Your task to perform on an android device: turn off improve location accuracy Image 0: 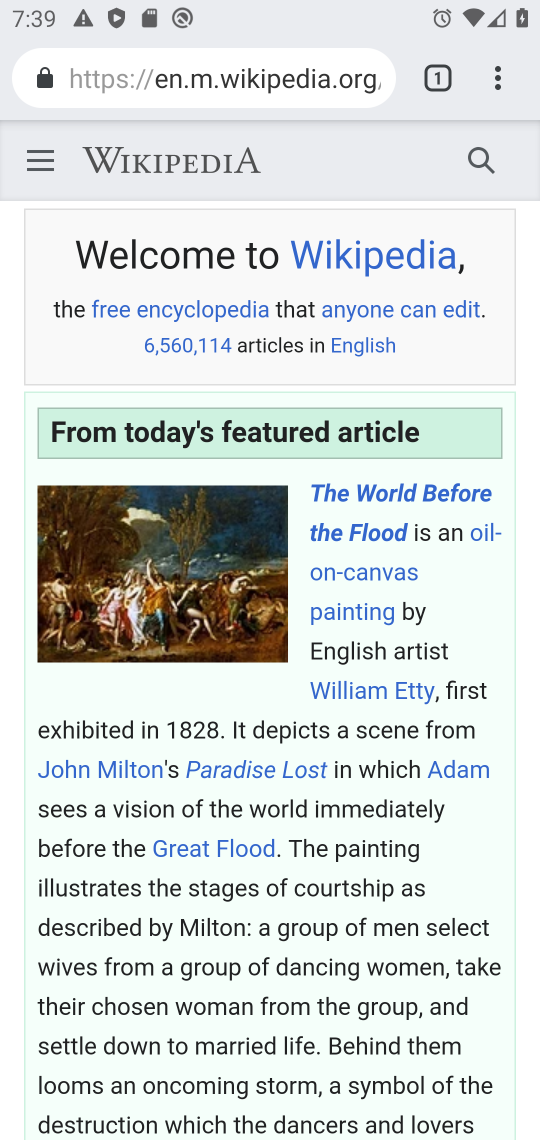
Step 0: press home button
Your task to perform on an android device: turn off improve location accuracy Image 1: 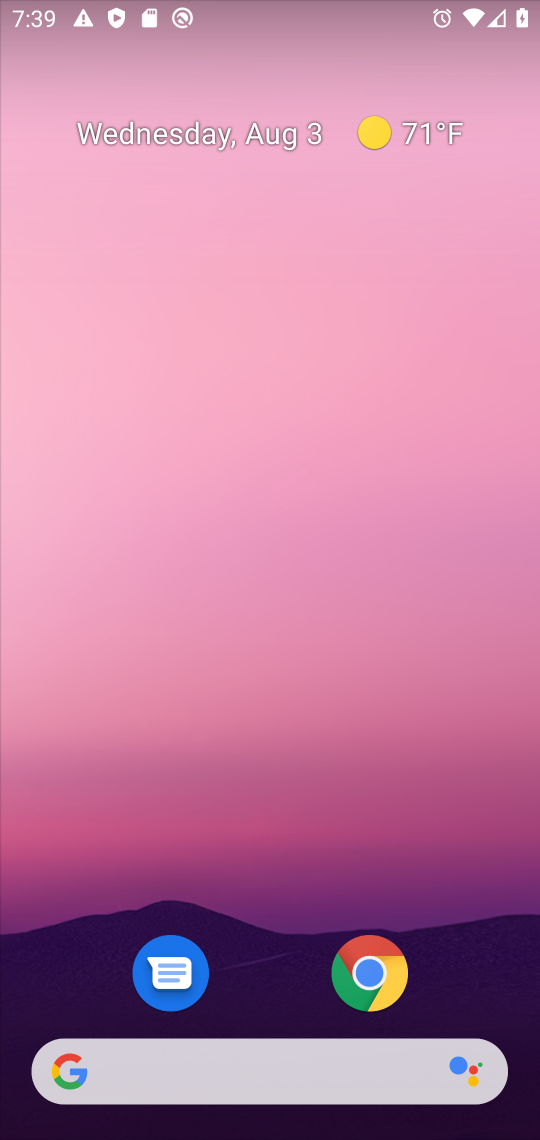
Step 1: drag from (284, 754) to (238, 216)
Your task to perform on an android device: turn off improve location accuracy Image 2: 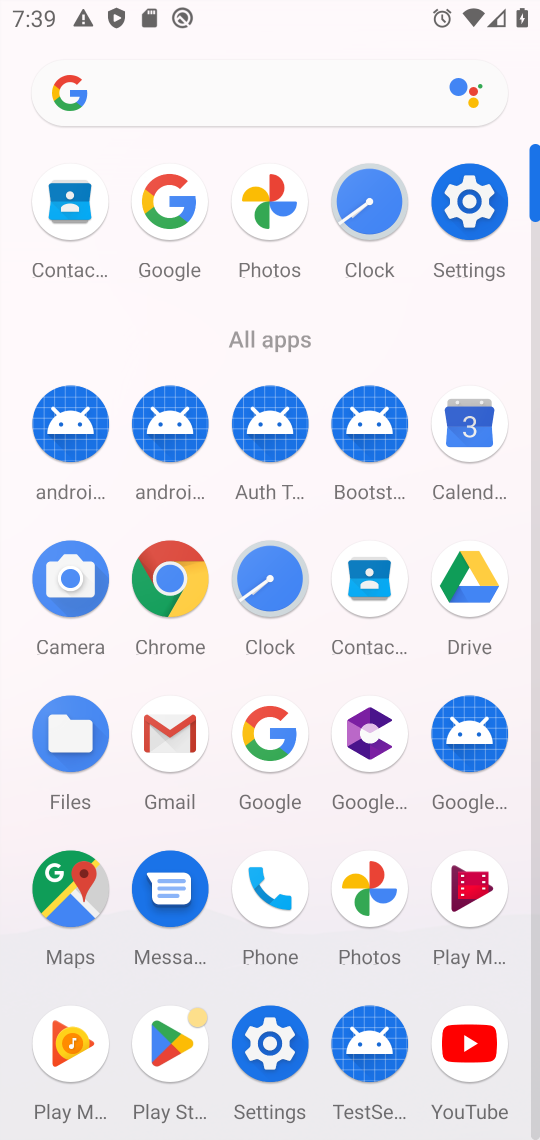
Step 2: click (461, 211)
Your task to perform on an android device: turn off improve location accuracy Image 3: 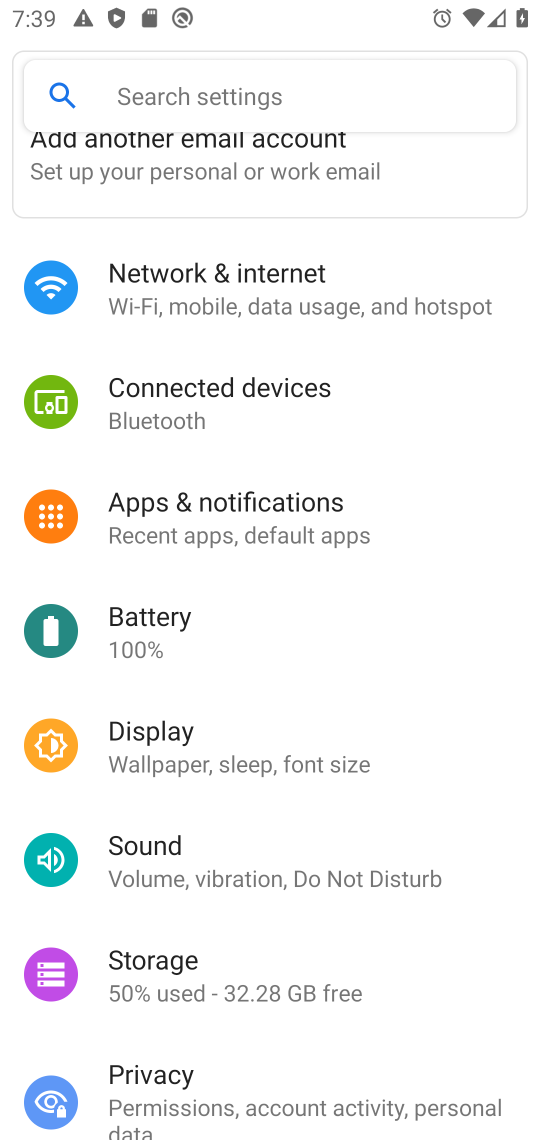
Step 3: click (175, 991)
Your task to perform on an android device: turn off improve location accuracy Image 4: 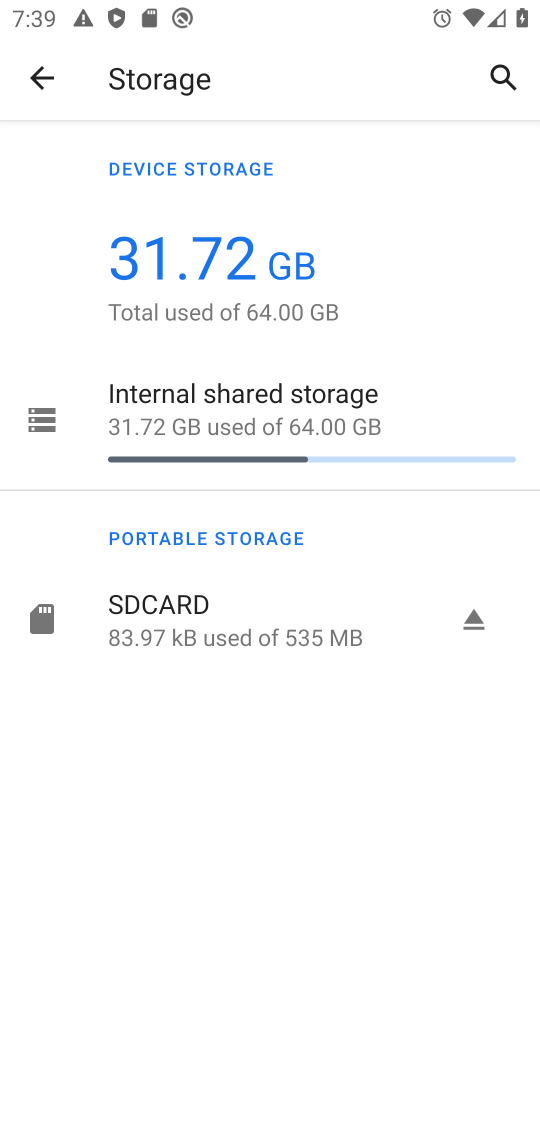
Step 4: click (52, 74)
Your task to perform on an android device: turn off improve location accuracy Image 5: 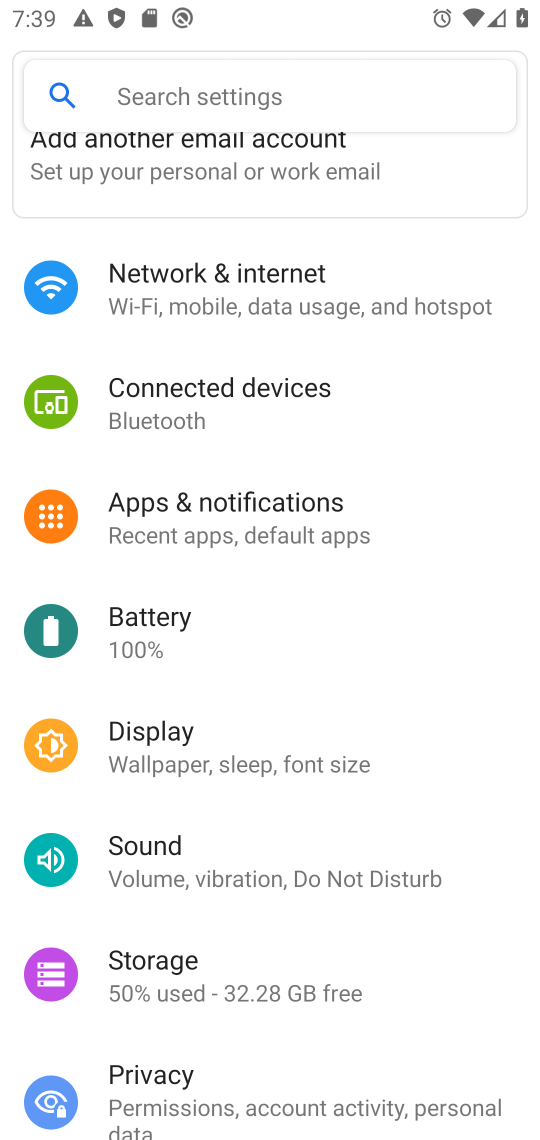
Step 5: drag from (190, 858) to (180, 479)
Your task to perform on an android device: turn off improve location accuracy Image 6: 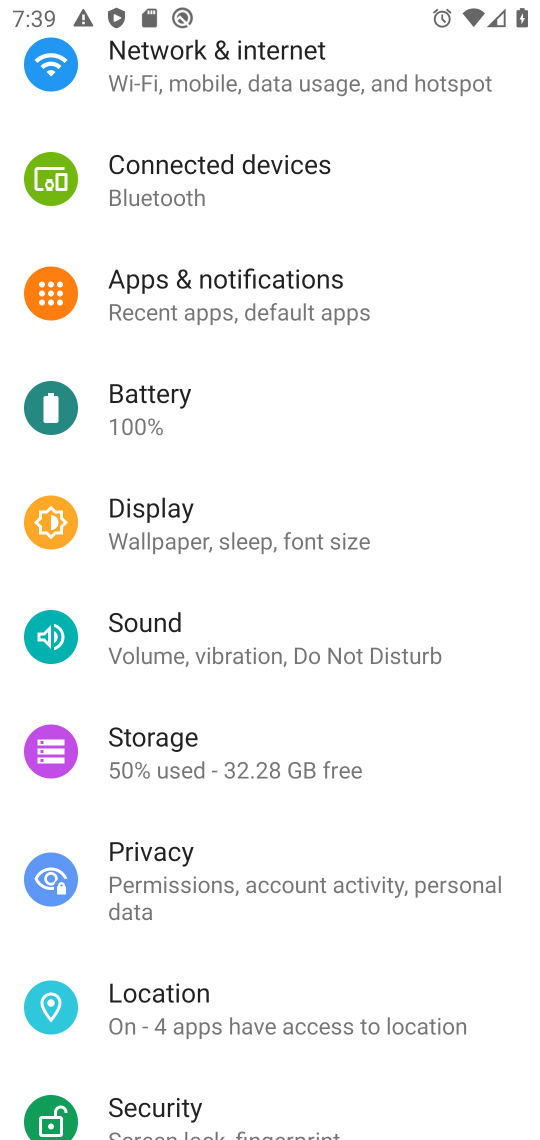
Step 6: click (174, 994)
Your task to perform on an android device: turn off improve location accuracy Image 7: 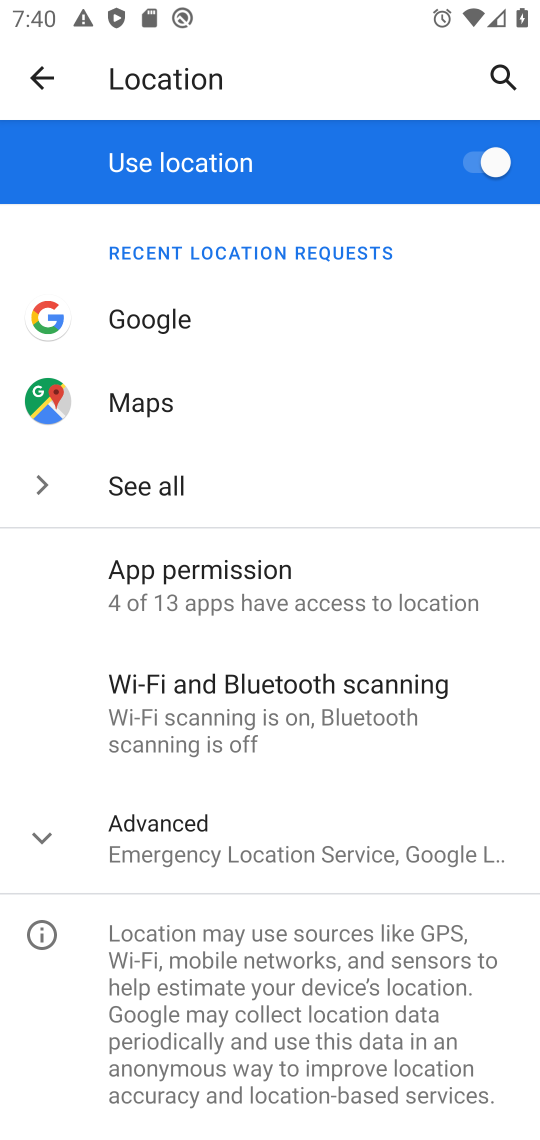
Step 7: click (136, 820)
Your task to perform on an android device: turn off improve location accuracy Image 8: 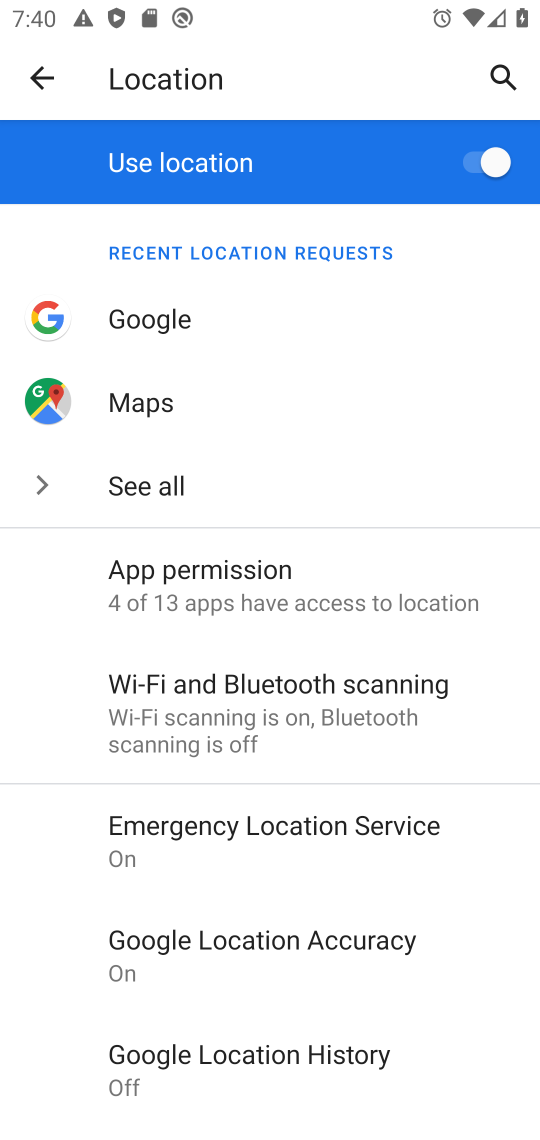
Step 8: click (318, 951)
Your task to perform on an android device: turn off improve location accuracy Image 9: 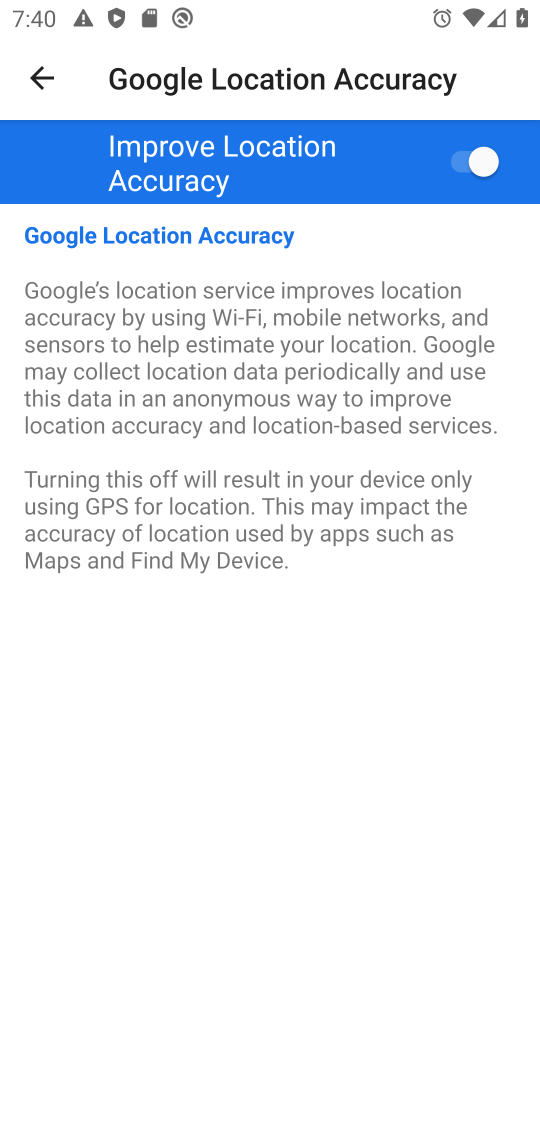
Step 9: click (451, 166)
Your task to perform on an android device: turn off improve location accuracy Image 10: 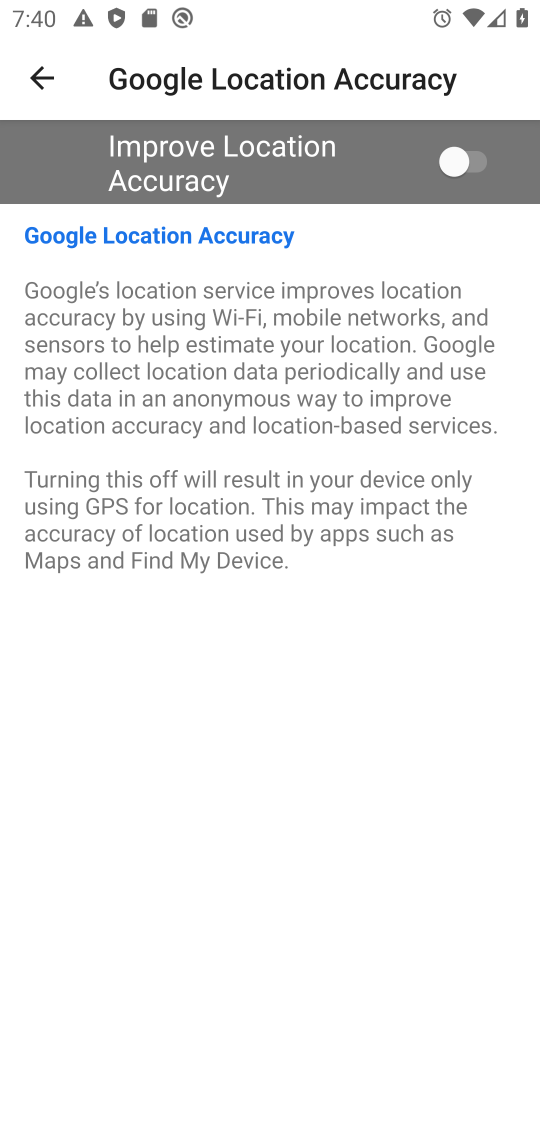
Step 10: task complete